Your task to perform on an android device: Open calendar and show me the fourth week of next month Image 0: 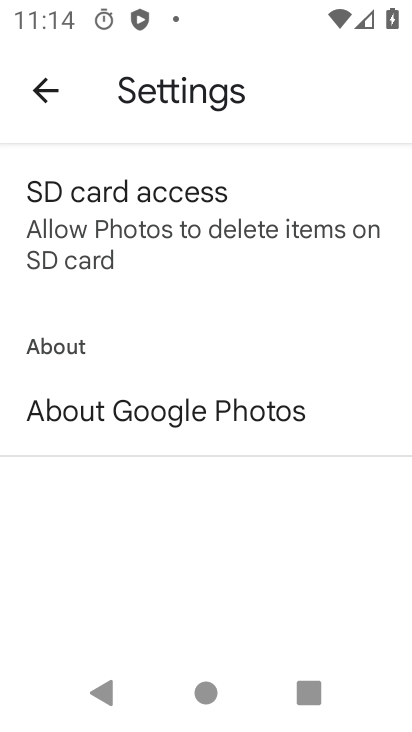
Step 0: press back button
Your task to perform on an android device: Open calendar and show me the fourth week of next month Image 1: 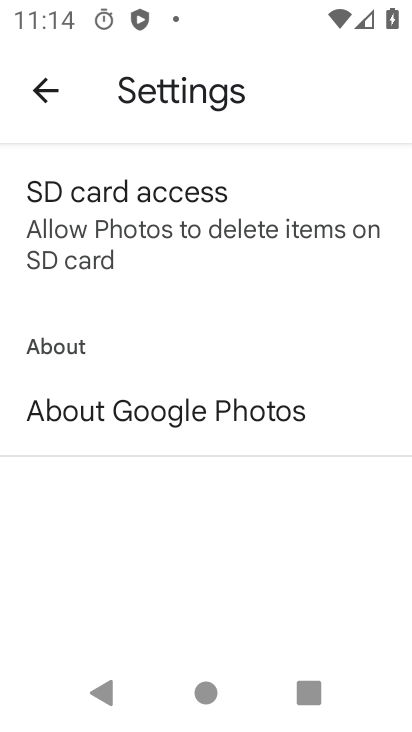
Step 1: press back button
Your task to perform on an android device: Open calendar and show me the fourth week of next month Image 2: 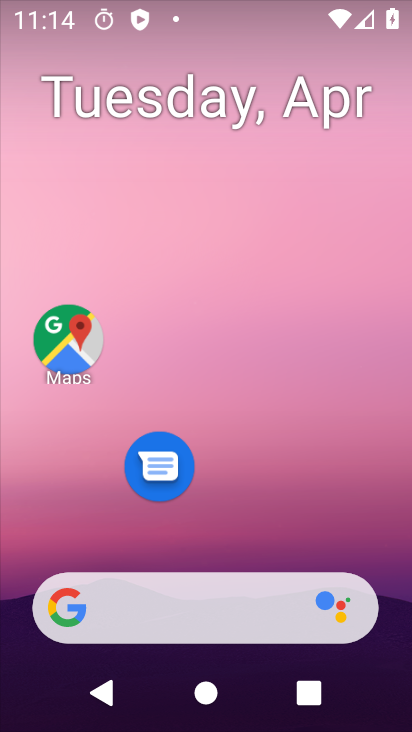
Step 2: drag from (312, 460) to (262, 99)
Your task to perform on an android device: Open calendar and show me the fourth week of next month Image 3: 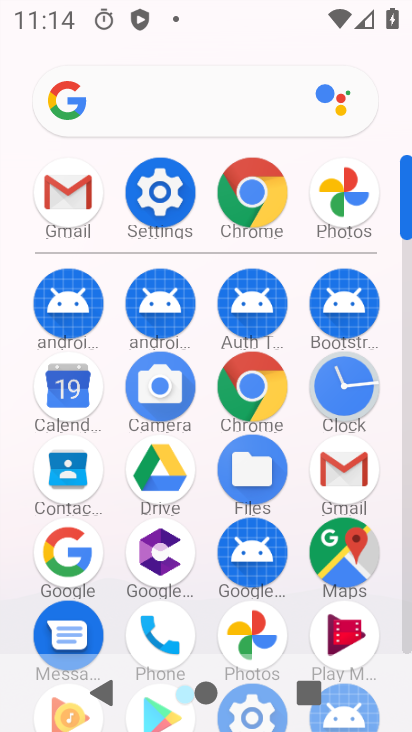
Step 3: click (67, 408)
Your task to perform on an android device: Open calendar and show me the fourth week of next month Image 4: 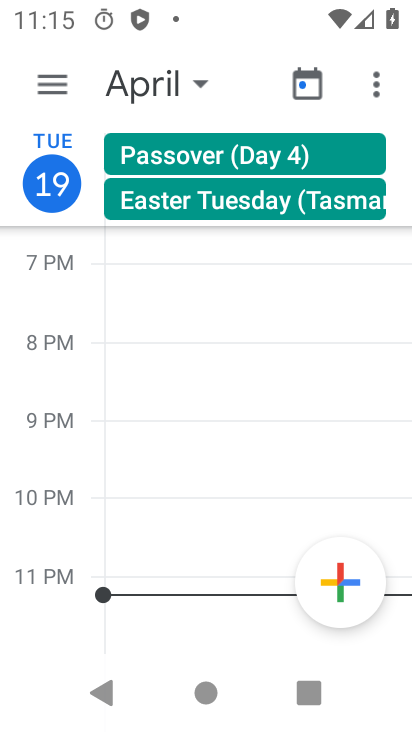
Step 4: click (141, 97)
Your task to perform on an android device: Open calendar and show me the fourth week of next month Image 5: 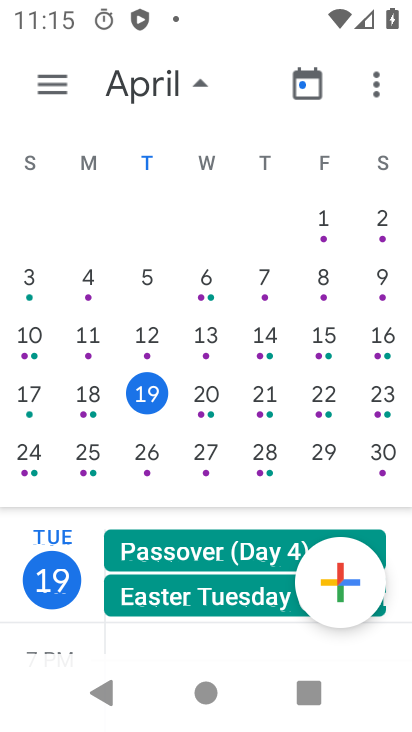
Step 5: drag from (340, 481) to (29, 489)
Your task to perform on an android device: Open calendar and show me the fourth week of next month Image 6: 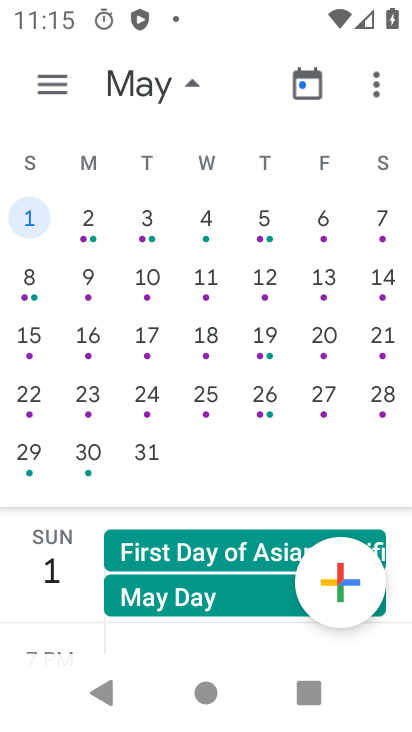
Step 6: click (160, 393)
Your task to perform on an android device: Open calendar and show me the fourth week of next month Image 7: 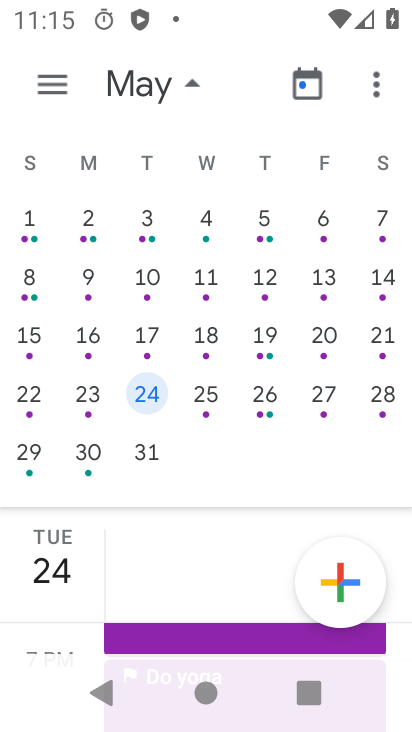
Step 7: task complete